Your task to perform on an android device: turn off sleep mode Image 0: 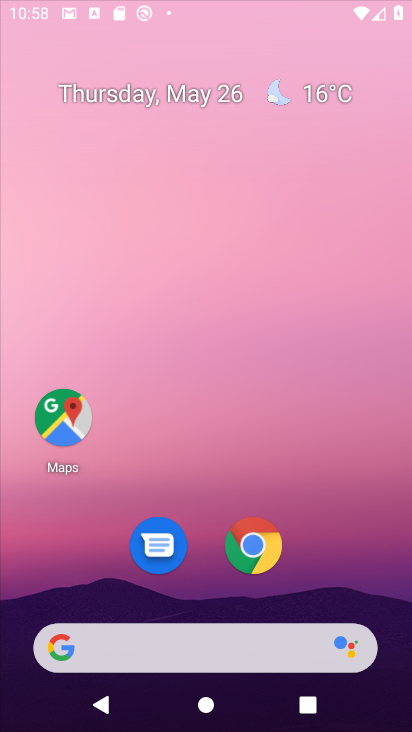
Step 0: press home button
Your task to perform on an android device: turn off sleep mode Image 1: 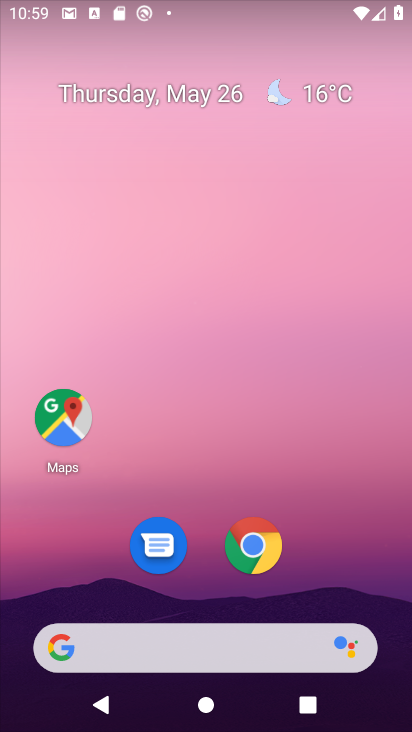
Step 1: drag from (215, 597) to (208, 226)
Your task to perform on an android device: turn off sleep mode Image 2: 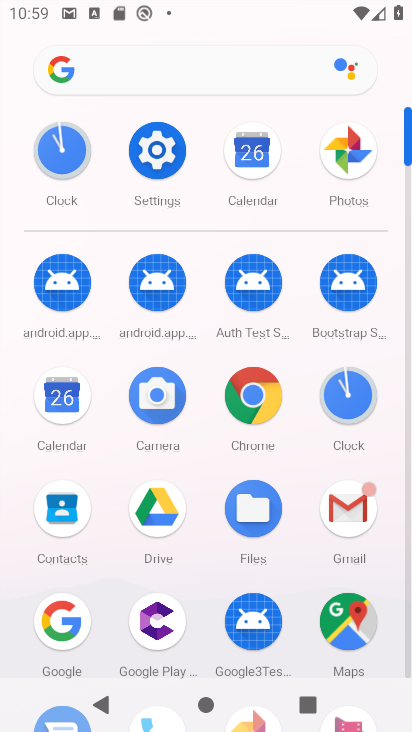
Step 2: click (144, 141)
Your task to perform on an android device: turn off sleep mode Image 3: 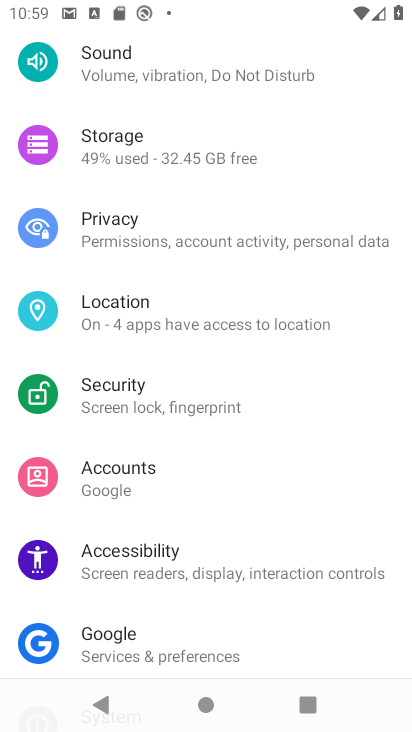
Step 3: drag from (224, 131) to (241, 593)
Your task to perform on an android device: turn off sleep mode Image 4: 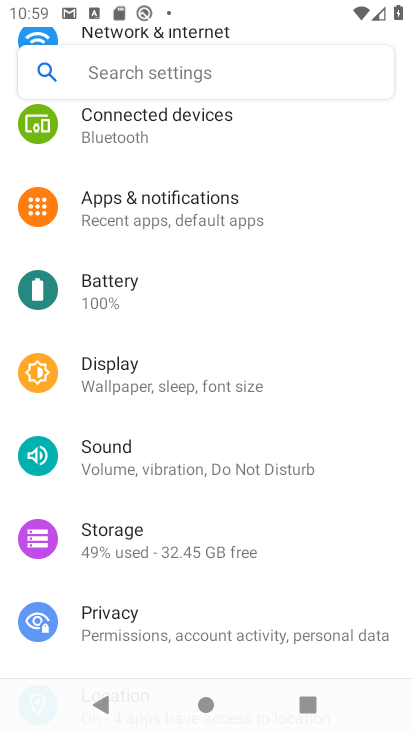
Step 4: drag from (266, 174) to (273, 616)
Your task to perform on an android device: turn off sleep mode Image 5: 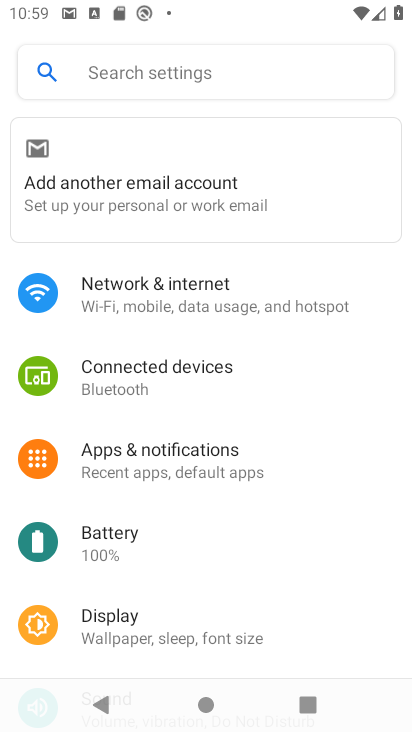
Step 5: click (142, 625)
Your task to perform on an android device: turn off sleep mode Image 6: 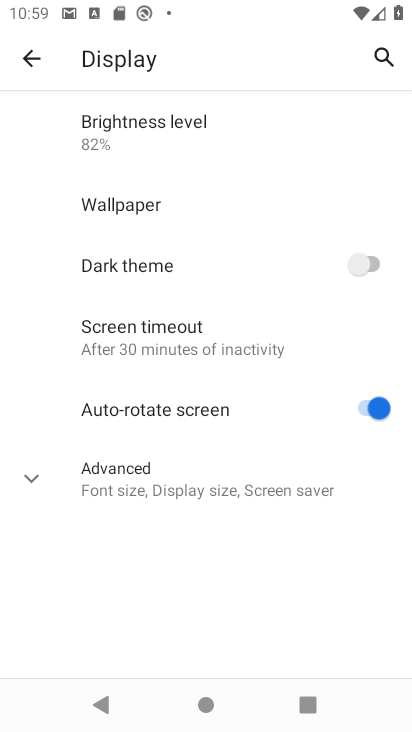
Step 6: task complete